Your task to perform on an android device: Open Google Chrome Image 0: 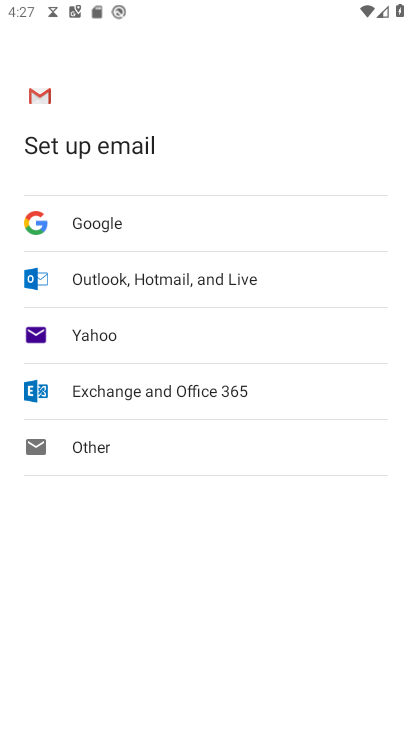
Step 0: press home button
Your task to perform on an android device: Open Google Chrome Image 1: 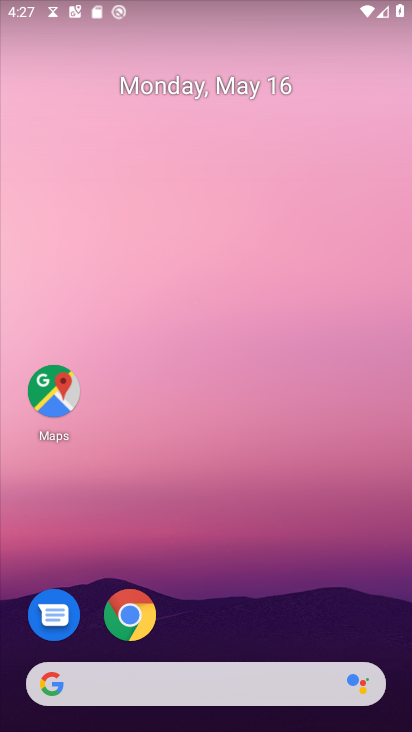
Step 1: click (124, 620)
Your task to perform on an android device: Open Google Chrome Image 2: 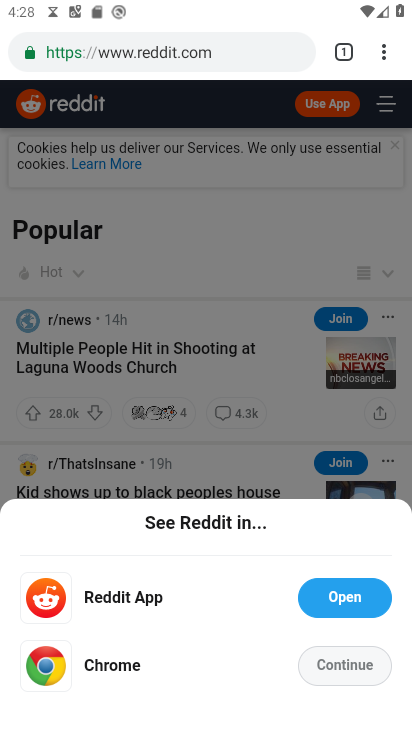
Step 2: click (364, 658)
Your task to perform on an android device: Open Google Chrome Image 3: 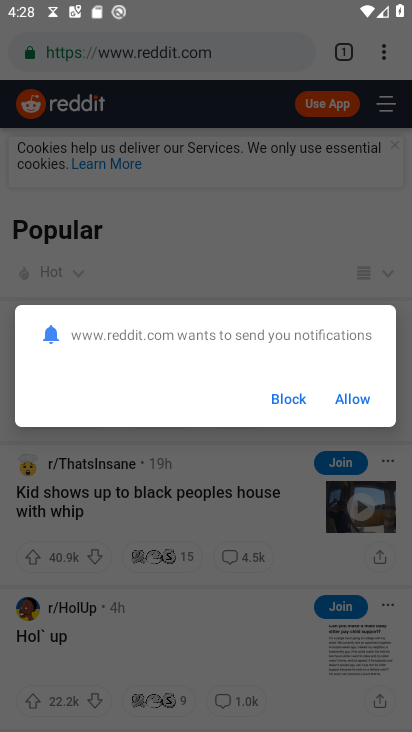
Step 3: click (280, 397)
Your task to perform on an android device: Open Google Chrome Image 4: 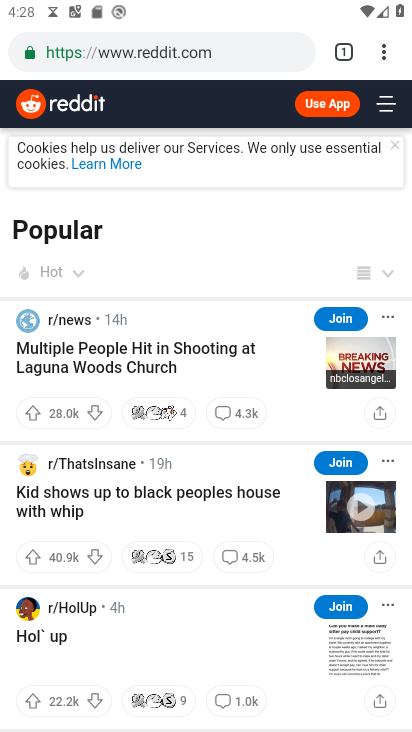
Step 4: task complete